Your task to perform on an android device: turn on data saver in the chrome app Image 0: 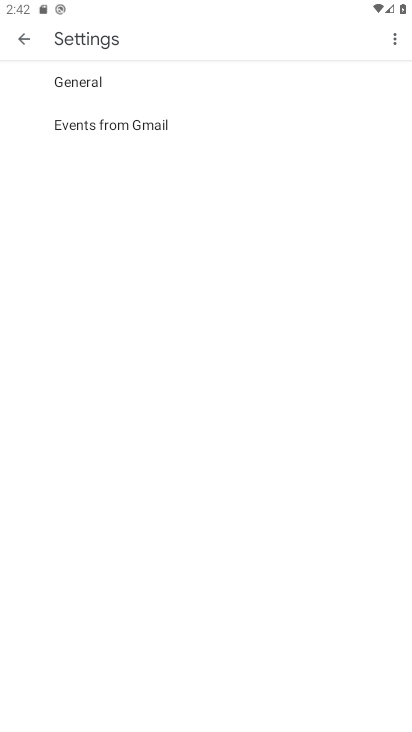
Step 0: press home button
Your task to perform on an android device: turn on data saver in the chrome app Image 1: 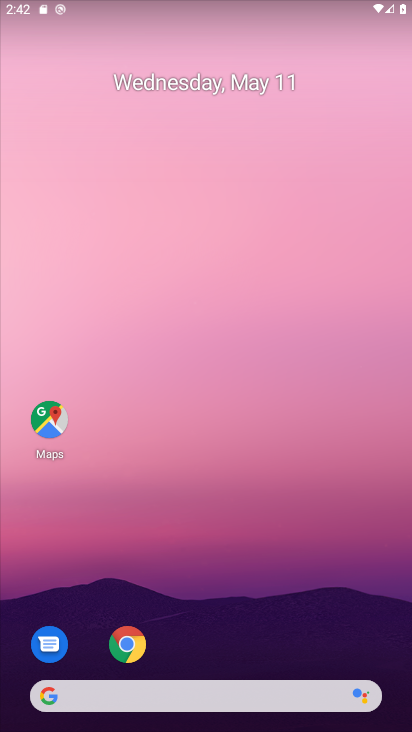
Step 1: click (126, 643)
Your task to perform on an android device: turn on data saver in the chrome app Image 2: 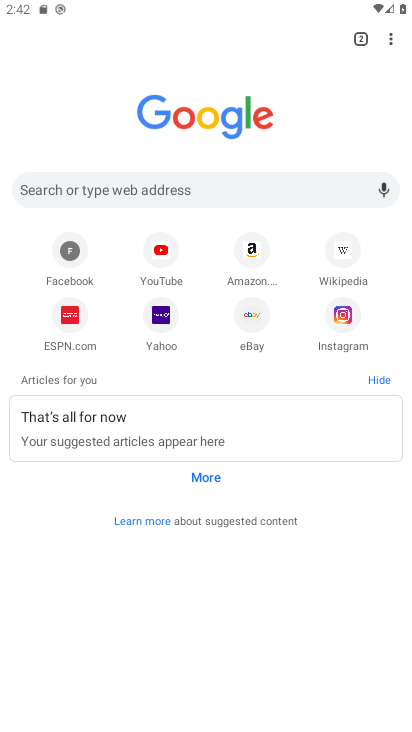
Step 2: drag from (393, 37) to (259, 321)
Your task to perform on an android device: turn on data saver in the chrome app Image 3: 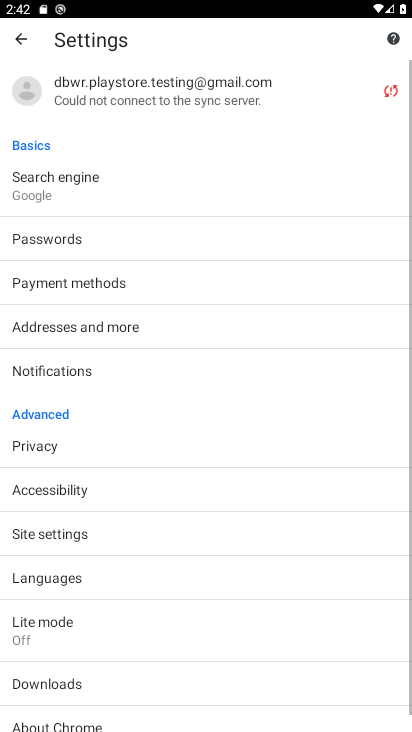
Step 3: drag from (155, 514) to (141, 155)
Your task to perform on an android device: turn on data saver in the chrome app Image 4: 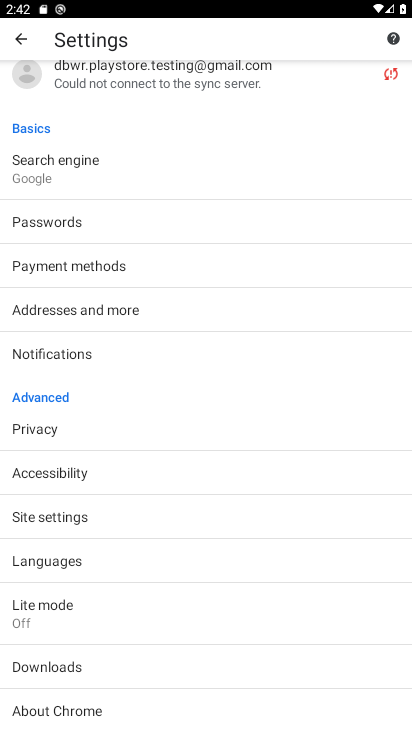
Step 4: click (82, 609)
Your task to perform on an android device: turn on data saver in the chrome app Image 5: 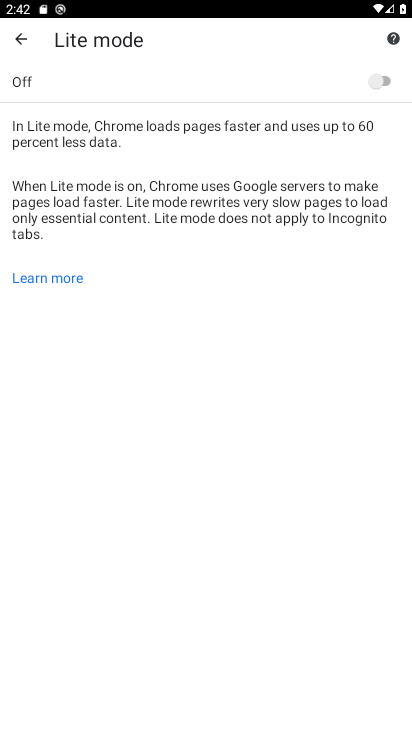
Step 5: click (372, 86)
Your task to perform on an android device: turn on data saver in the chrome app Image 6: 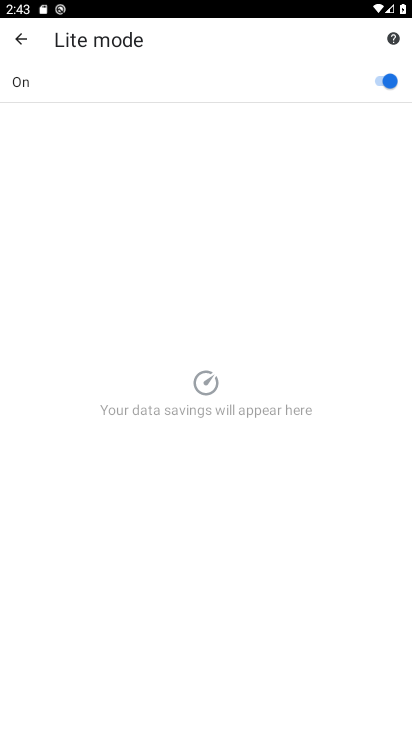
Step 6: task complete